Your task to perform on an android device: What is the news today? Image 0: 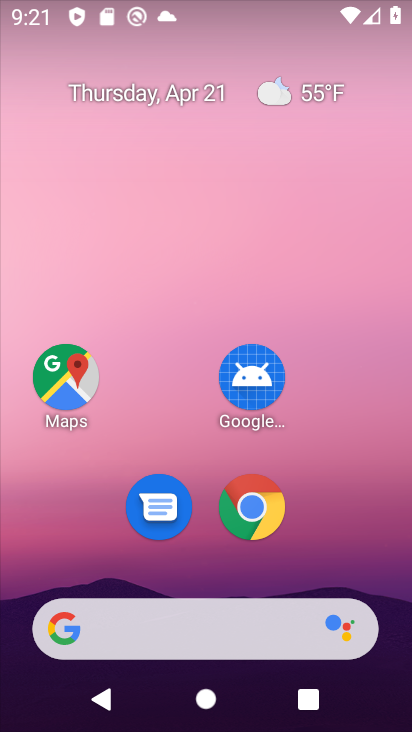
Step 0: drag from (200, 373) to (235, 230)
Your task to perform on an android device: What is the news today? Image 1: 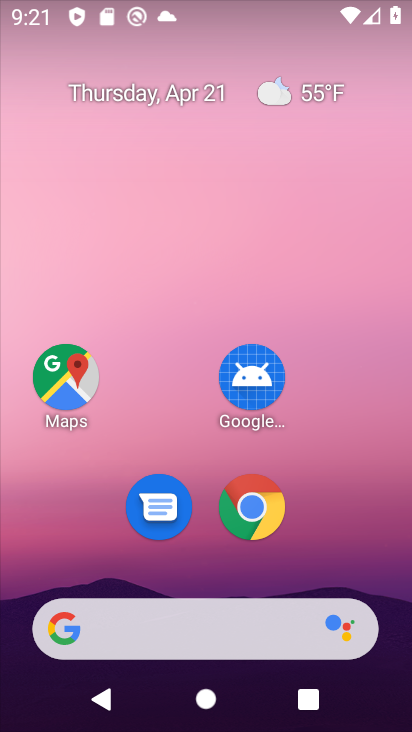
Step 1: drag from (318, 563) to (325, 156)
Your task to perform on an android device: What is the news today? Image 2: 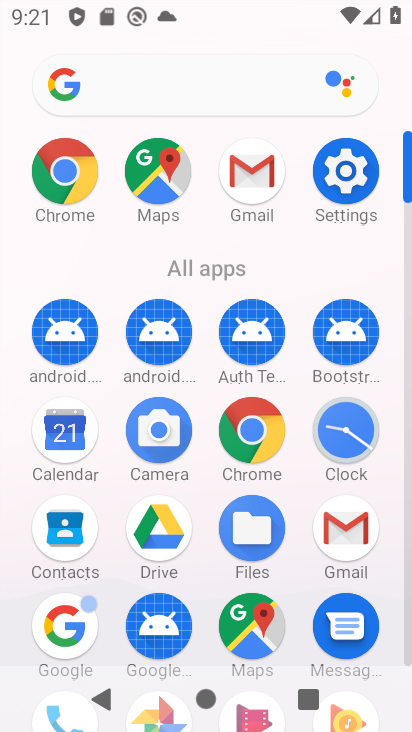
Step 2: click (253, 423)
Your task to perform on an android device: What is the news today? Image 3: 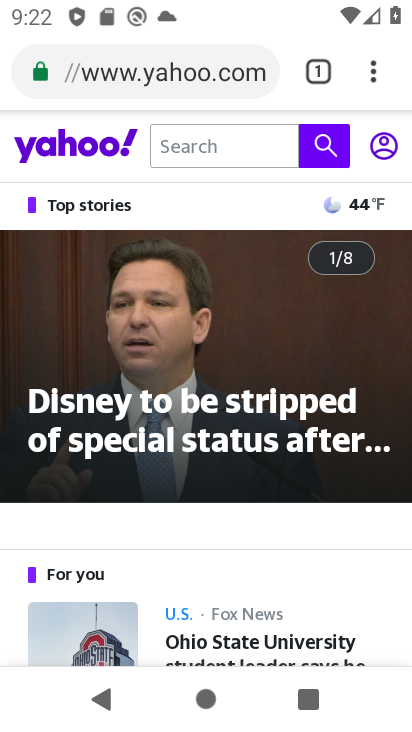
Step 3: click (357, 82)
Your task to perform on an android device: What is the news today? Image 4: 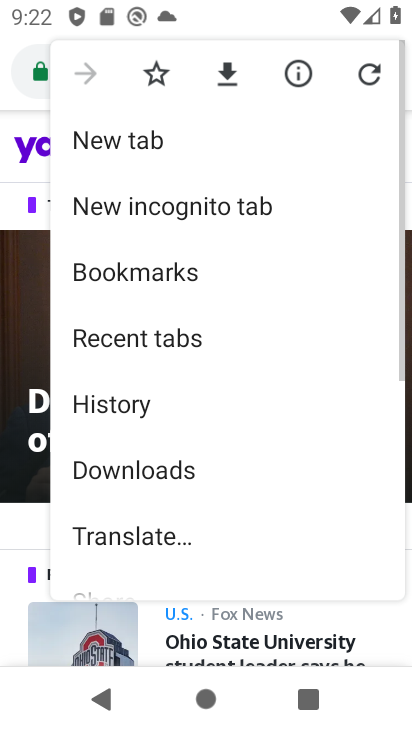
Step 4: click (176, 145)
Your task to perform on an android device: What is the news today? Image 5: 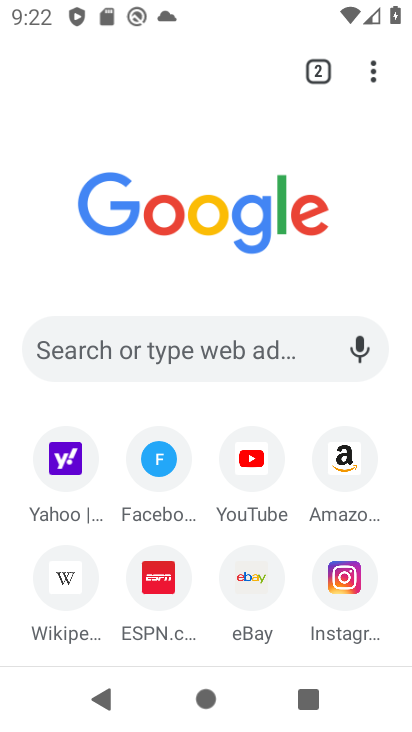
Step 5: click (237, 335)
Your task to perform on an android device: What is the news today? Image 6: 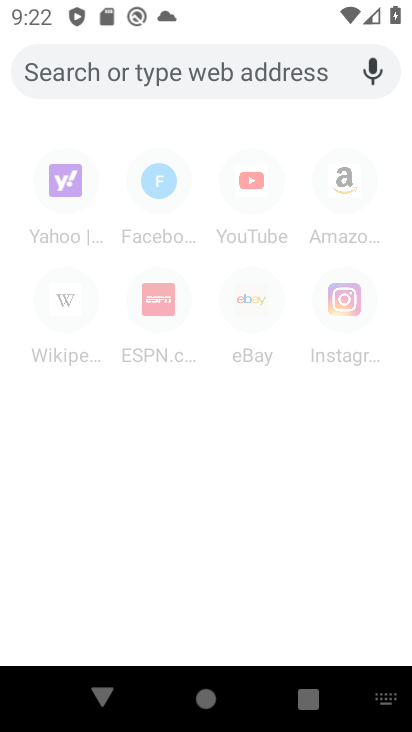
Step 6: type "What is the news today?"
Your task to perform on an android device: What is the news today? Image 7: 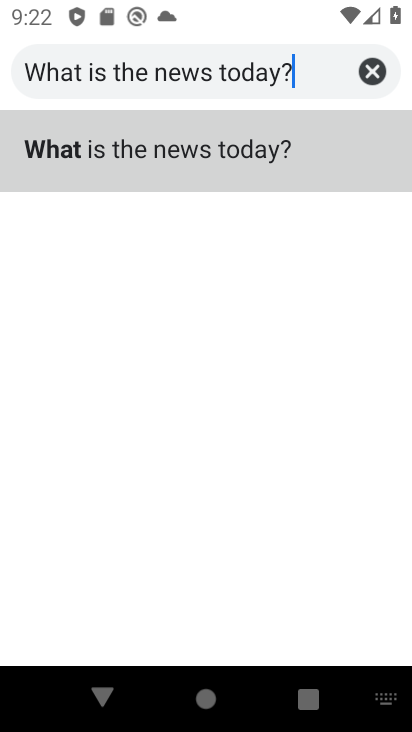
Step 7: click (309, 138)
Your task to perform on an android device: What is the news today? Image 8: 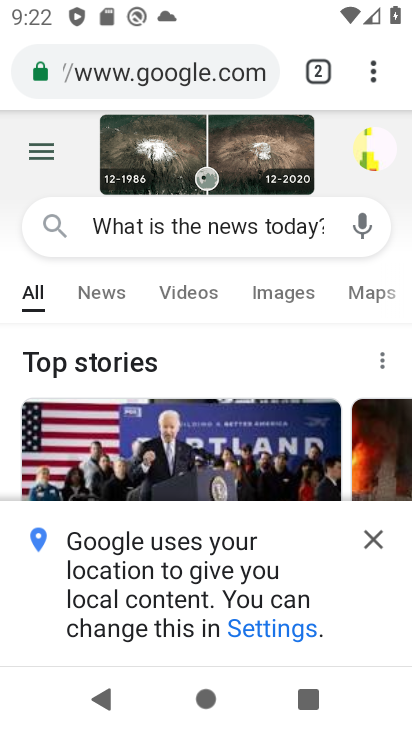
Step 8: click (382, 538)
Your task to perform on an android device: What is the news today? Image 9: 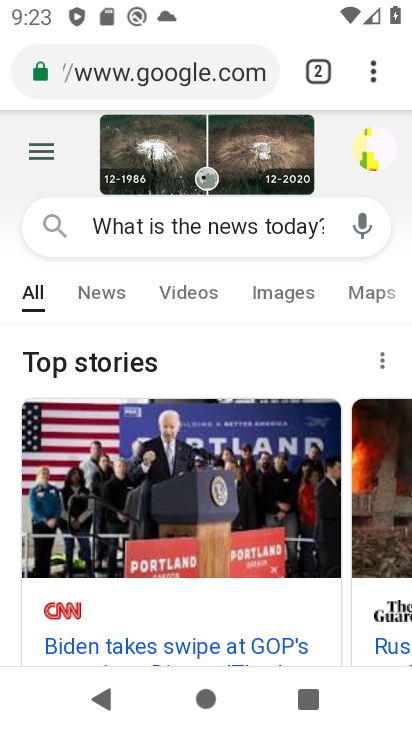
Step 9: task complete